Your task to perform on an android device: toggle airplane mode Image 0: 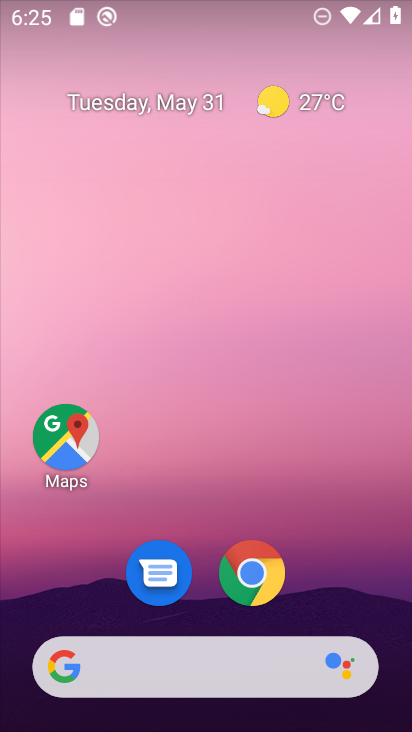
Step 0: drag from (380, 625) to (369, 356)
Your task to perform on an android device: toggle airplane mode Image 1: 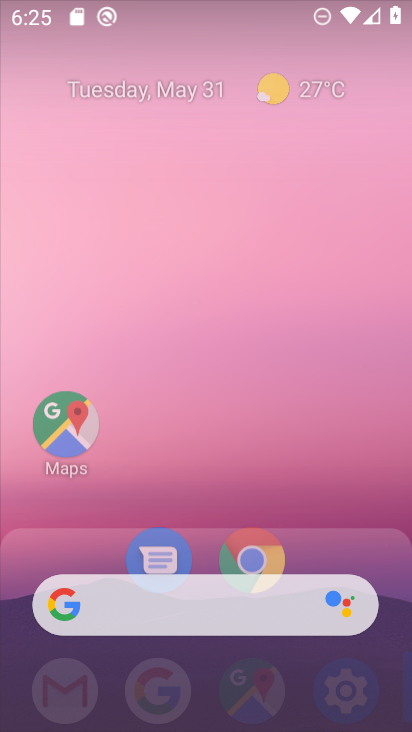
Step 1: click (343, 150)
Your task to perform on an android device: toggle airplane mode Image 2: 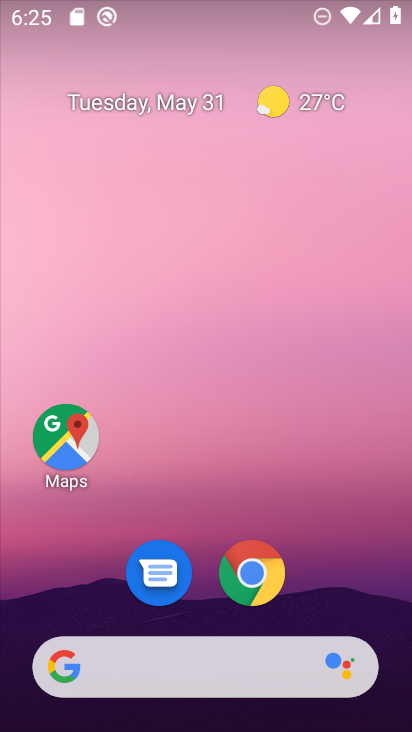
Step 2: drag from (293, 12) to (186, 652)
Your task to perform on an android device: toggle airplane mode Image 3: 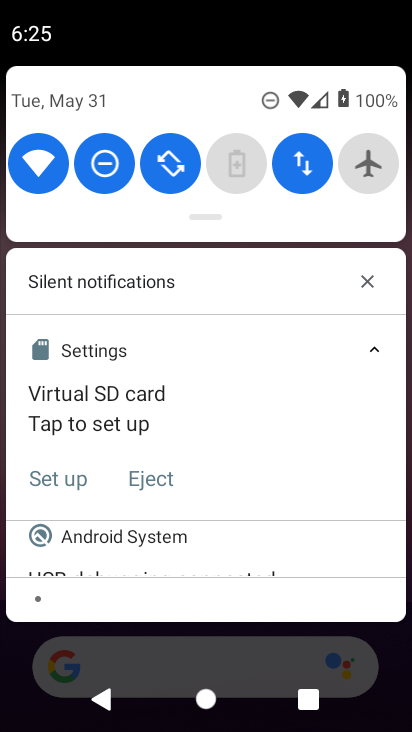
Step 3: click (366, 165)
Your task to perform on an android device: toggle airplane mode Image 4: 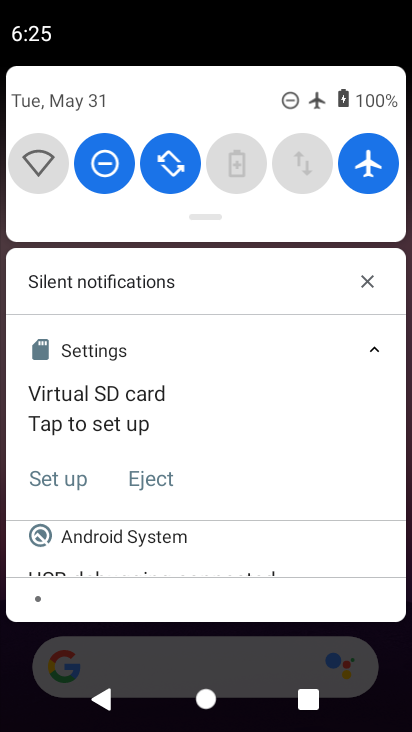
Step 4: task complete